Your task to perform on an android device: Search for pizza restaurants on Maps Image 0: 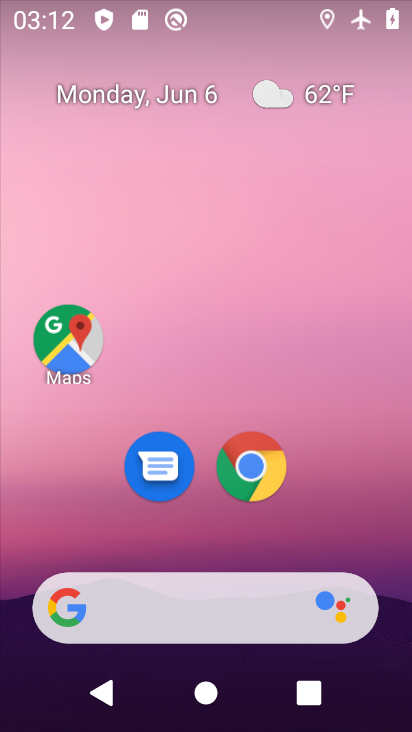
Step 0: click (310, 28)
Your task to perform on an android device: Search for pizza restaurants on Maps Image 1: 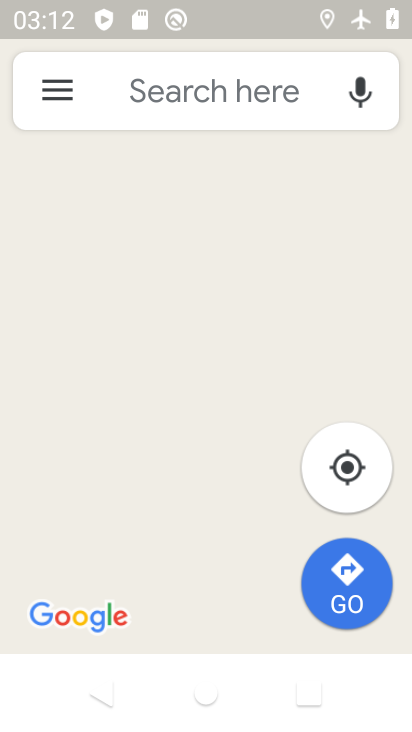
Step 1: press home button
Your task to perform on an android device: Search for pizza restaurants on Maps Image 2: 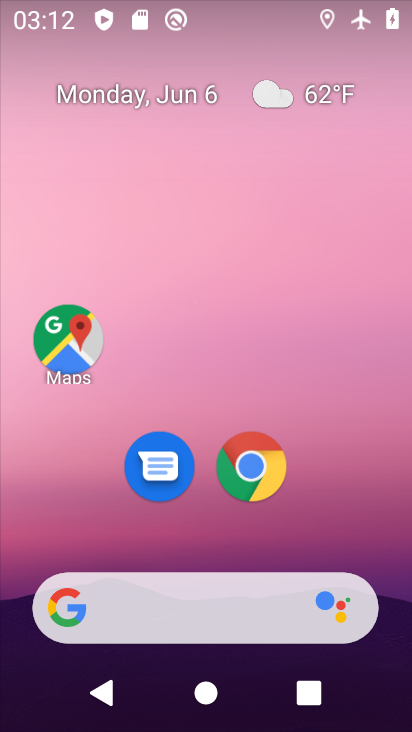
Step 2: click (71, 339)
Your task to perform on an android device: Search for pizza restaurants on Maps Image 3: 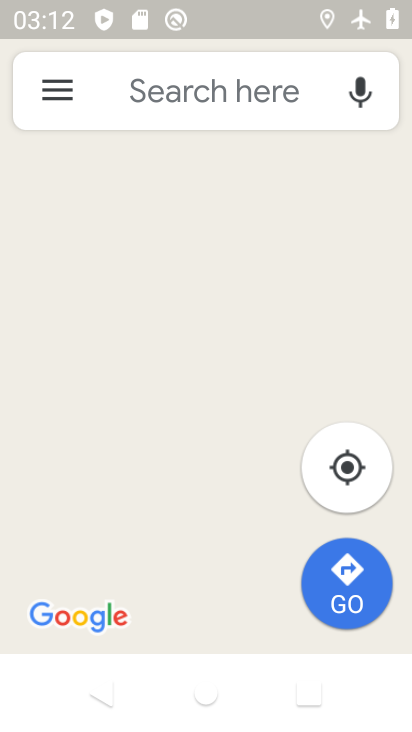
Step 3: click (190, 111)
Your task to perform on an android device: Search for pizza restaurants on Maps Image 4: 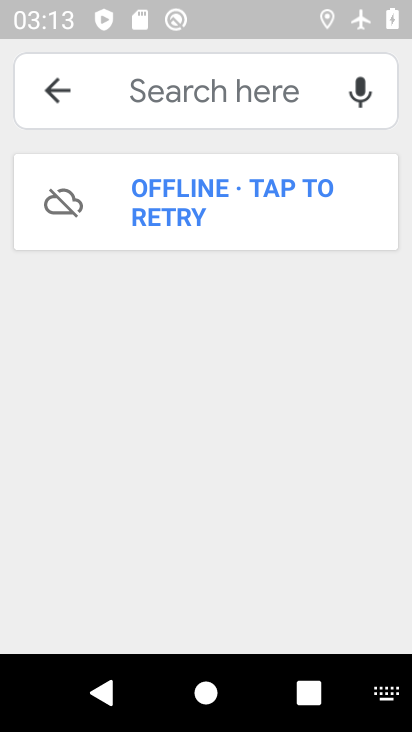
Step 4: type "pizza restaurant"
Your task to perform on an android device: Search for pizza restaurants on Maps Image 5: 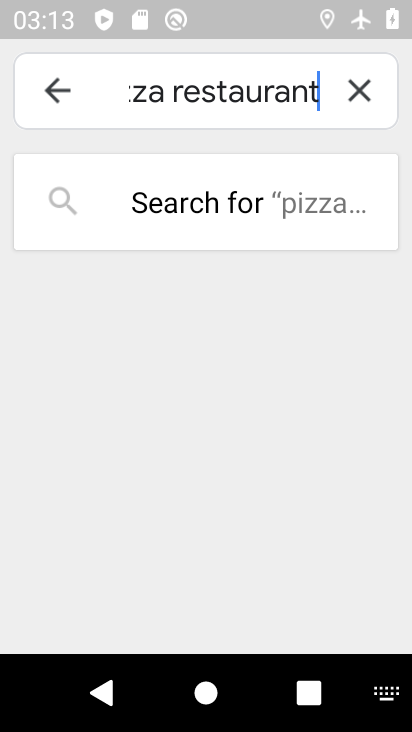
Step 5: type "s"
Your task to perform on an android device: Search for pizza restaurants on Maps Image 6: 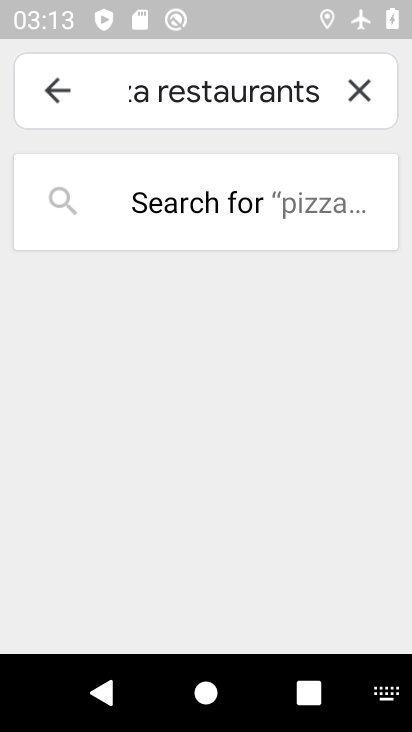
Step 6: press enter
Your task to perform on an android device: Search for pizza restaurants on Maps Image 7: 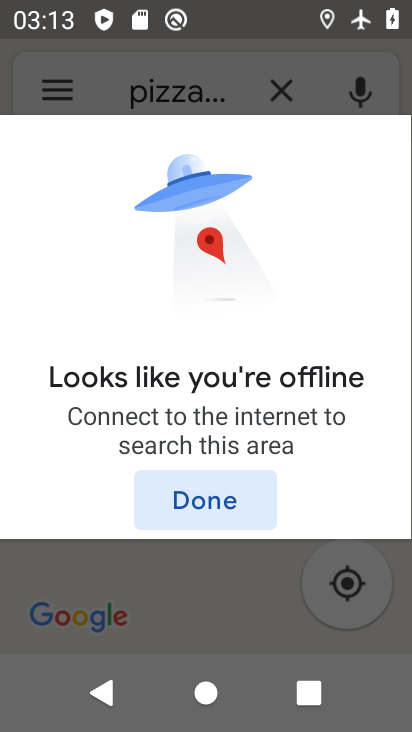
Step 7: task complete